Your task to perform on an android device: turn off smart reply in the gmail app Image 0: 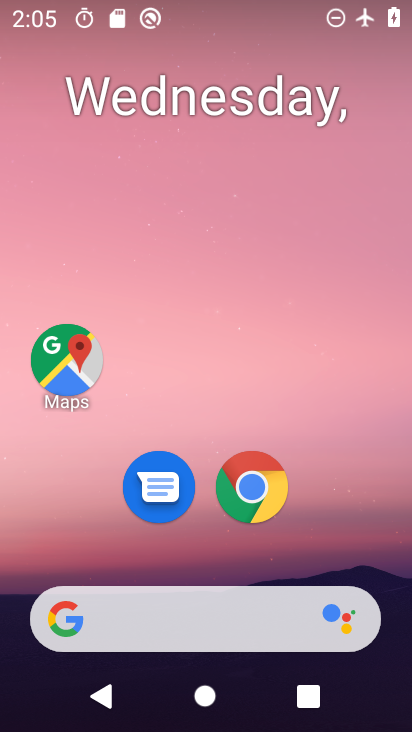
Step 0: drag from (95, 562) to (163, 34)
Your task to perform on an android device: turn off smart reply in the gmail app Image 1: 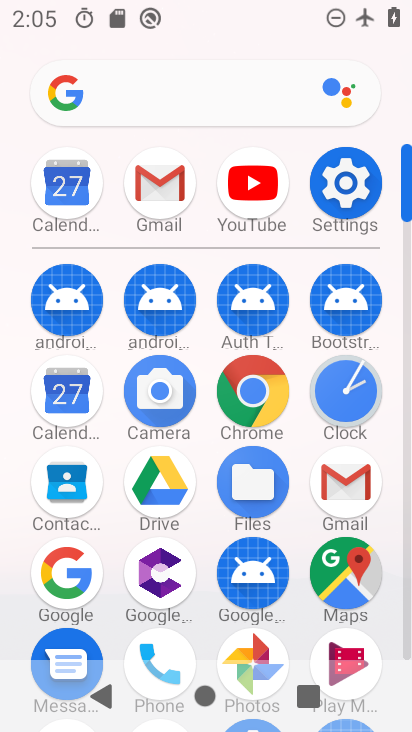
Step 1: click (156, 175)
Your task to perform on an android device: turn off smart reply in the gmail app Image 2: 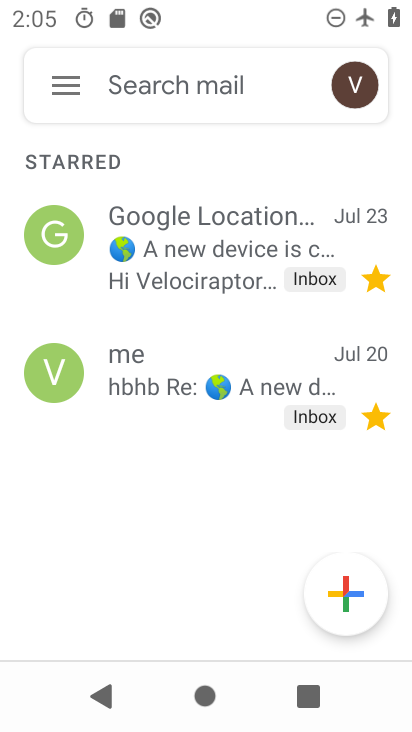
Step 2: click (73, 96)
Your task to perform on an android device: turn off smart reply in the gmail app Image 3: 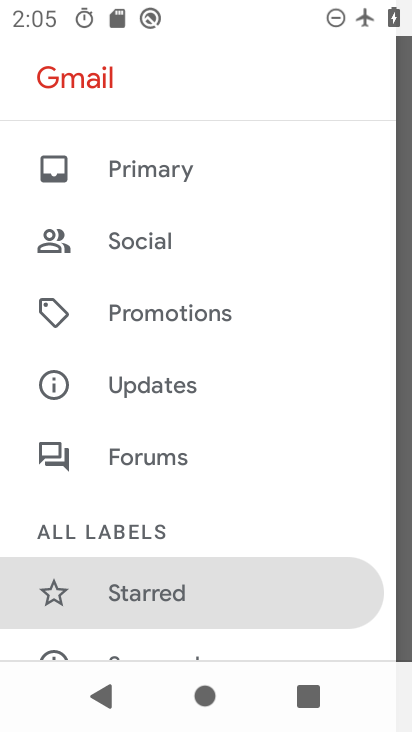
Step 3: drag from (146, 529) to (229, 36)
Your task to perform on an android device: turn off smart reply in the gmail app Image 4: 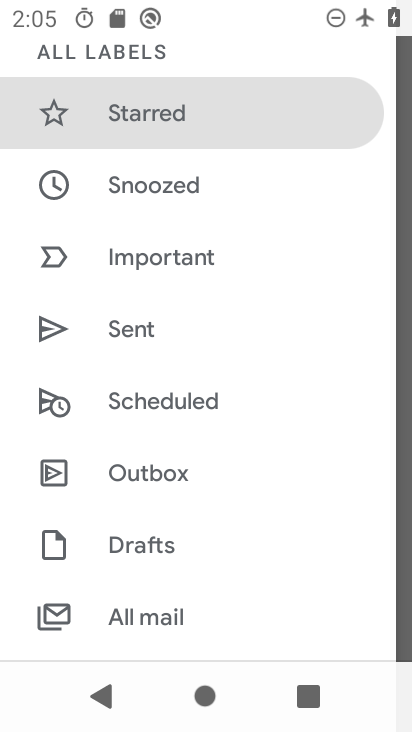
Step 4: drag from (149, 573) to (283, 22)
Your task to perform on an android device: turn off smart reply in the gmail app Image 5: 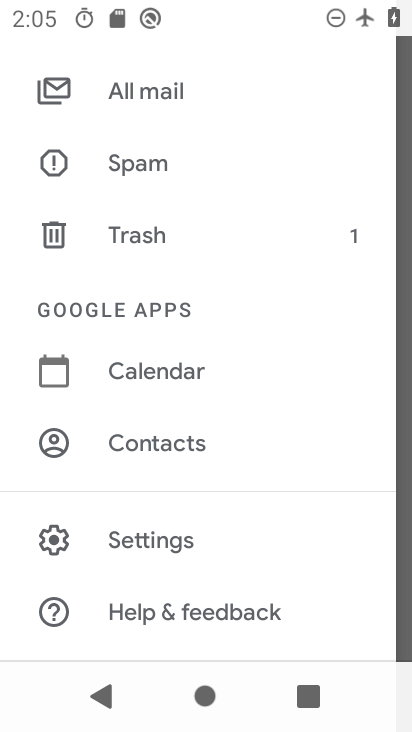
Step 5: click (188, 549)
Your task to perform on an android device: turn off smart reply in the gmail app Image 6: 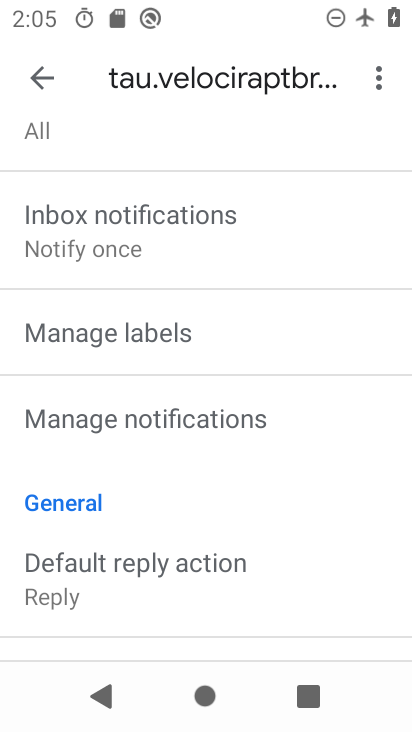
Step 6: task complete